Your task to perform on an android device: open app "Nova Launcher" (install if not already installed) Image 0: 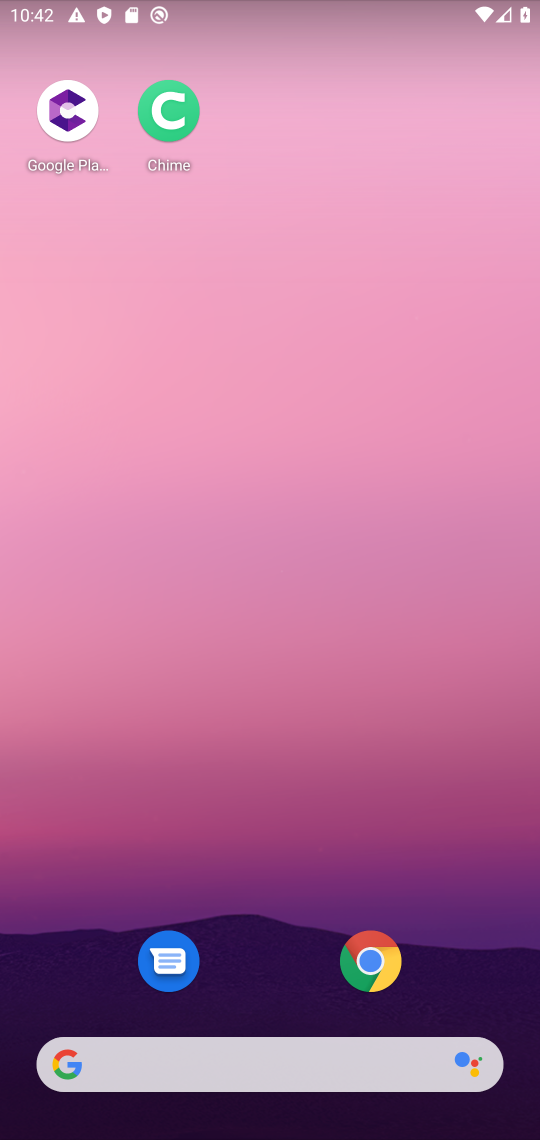
Step 0: drag from (253, 987) to (351, 83)
Your task to perform on an android device: open app "Nova Launcher" (install if not already installed) Image 1: 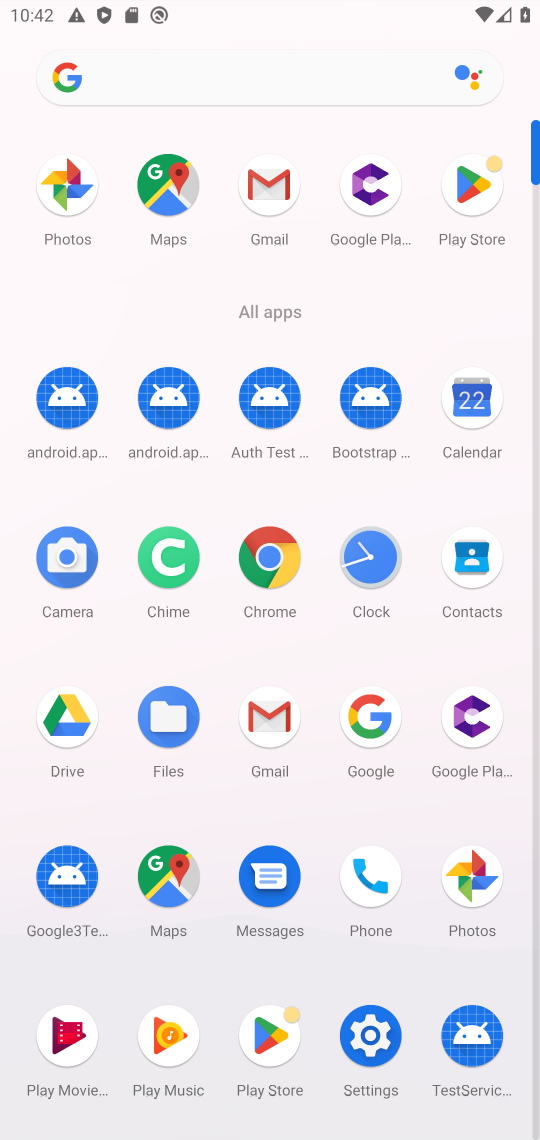
Step 1: click (462, 169)
Your task to perform on an android device: open app "Nova Launcher" (install if not already installed) Image 2: 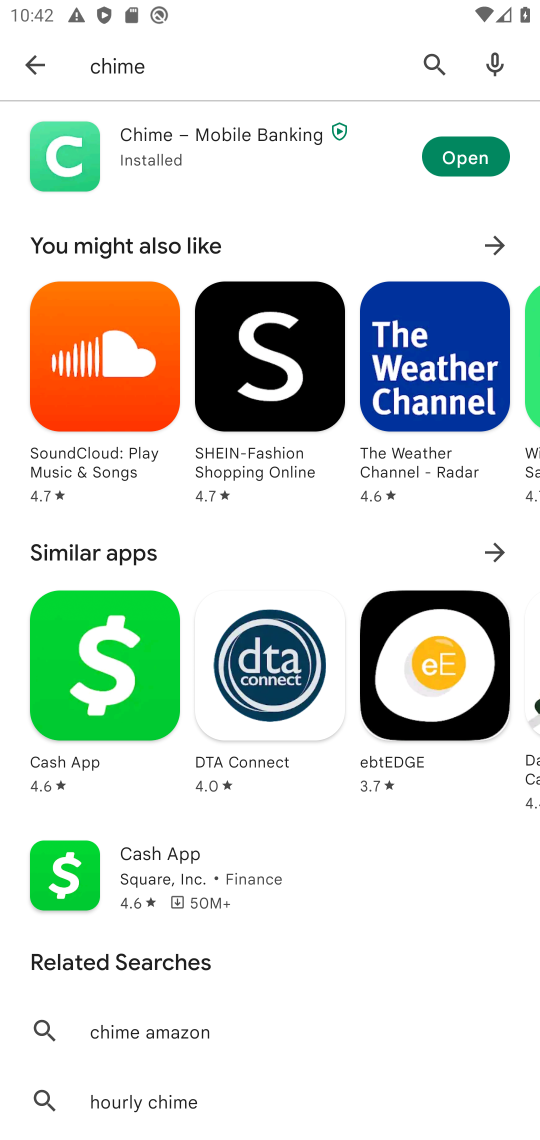
Step 2: click (438, 77)
Your task to perform on an android device: open app "Nova Launcher" (install if not already installed) Image 3: 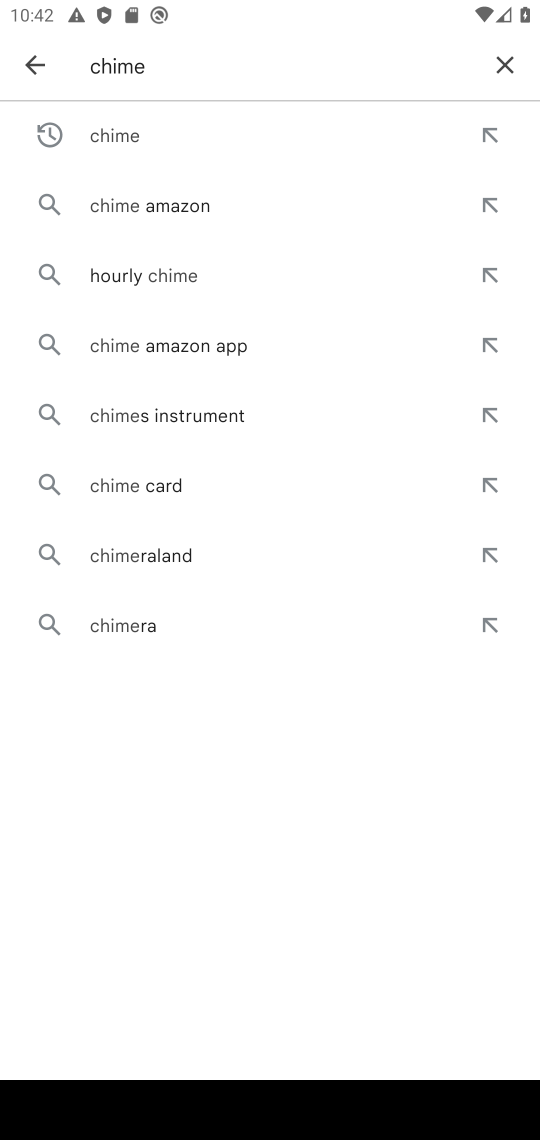
Step 3: click (486, 72)
Your task to perform on an android device: open app "Nova Launcher" (install if not already installed) Image 4: 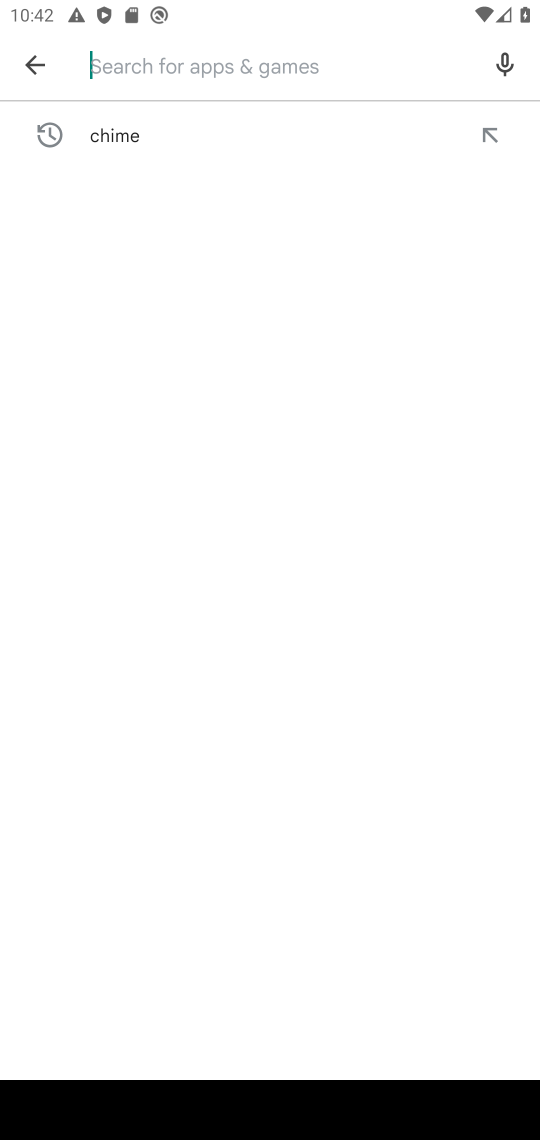
Step 4: type "nova launcher"
Your task to perform on an android device: open app "Nova Launcher" (install if not already installed) Image 5: 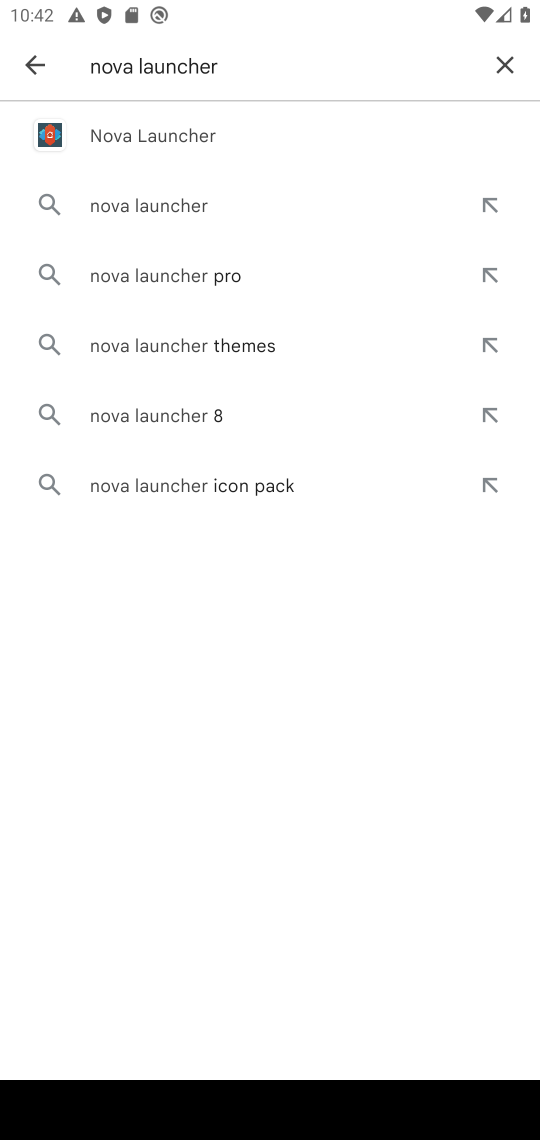
Step 5: click (176, 148)
Your task to perform on an android device: open app "Nova Launcher" (install if not already installed) Image 6: 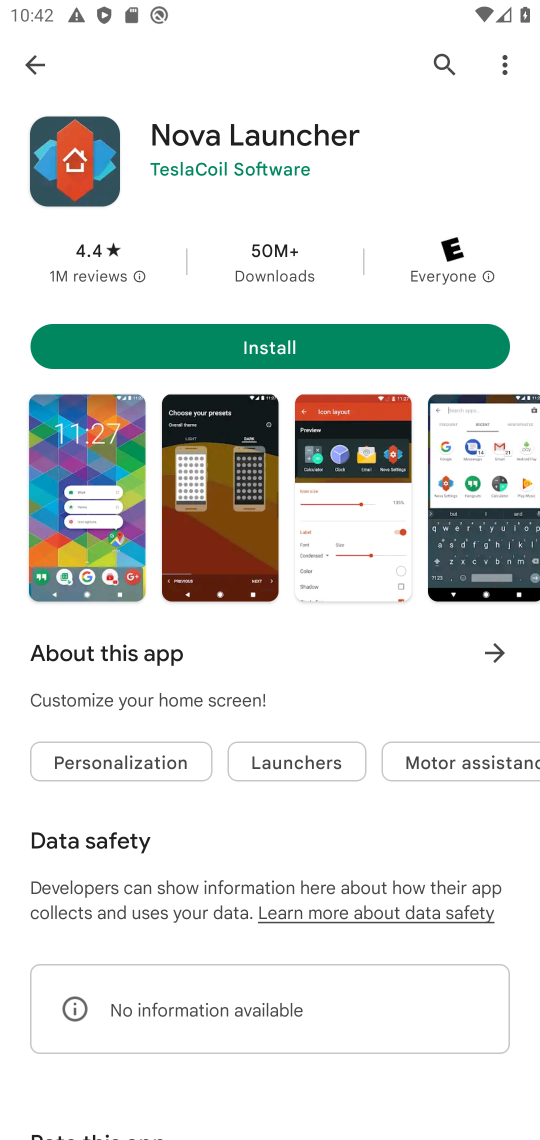
Step 6: click (270, 335)
Your task to perform on an android device: open app "Nova Launcher" (install if not already installed) Image 7: 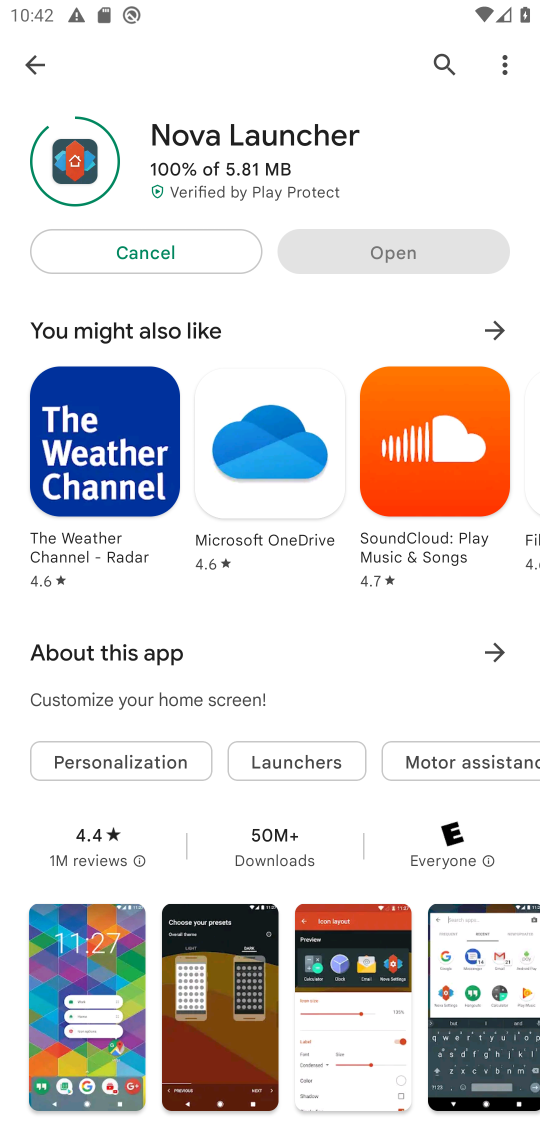
Step 7: task complete